Your task to perform on an android device: choose inbox layout in the gmail app Image 0: 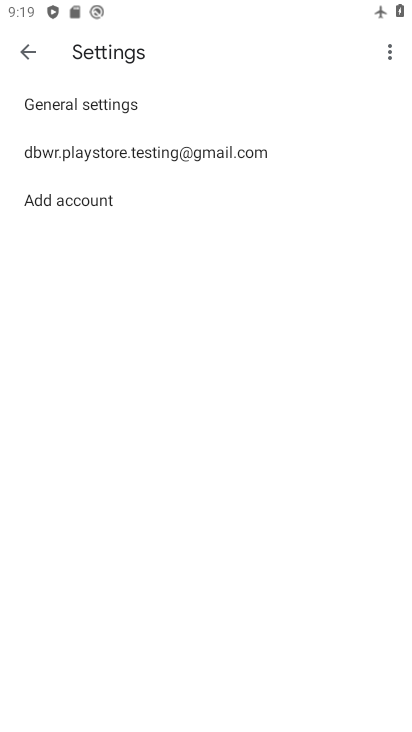
Step 0: press home button
Your task to perform on an android device: choose inbox layout in the gmail app Image 1: 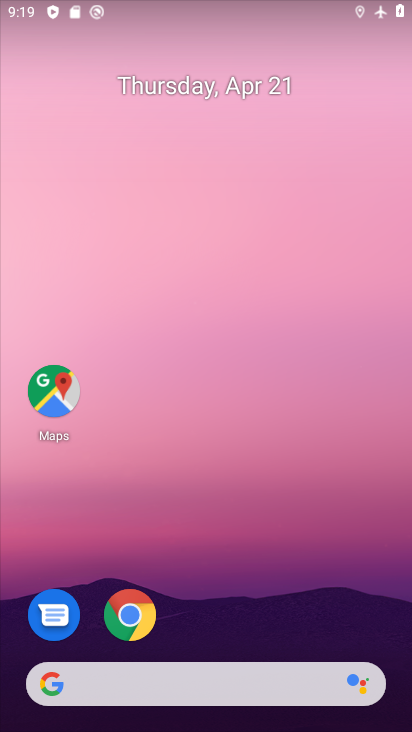
Step 1: drag from (202, 727) to (202, 175)
Your task to perform on an android device: choose inbox layout in the gmail app Image 2: 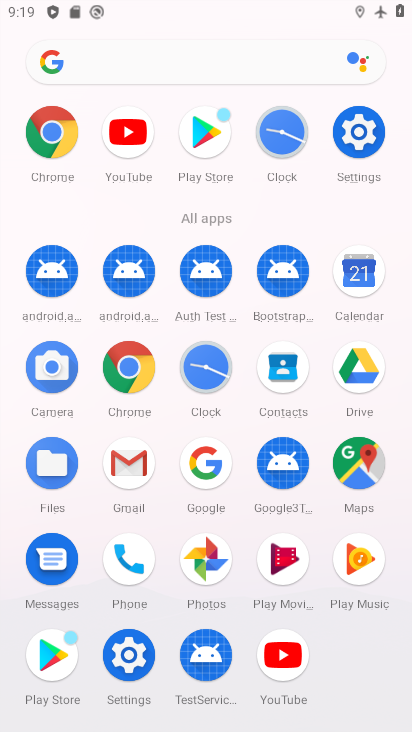
Step 2: click (129, 466)
Your task to perform on an android device: choose inbox layout in the gmail app Image 3: 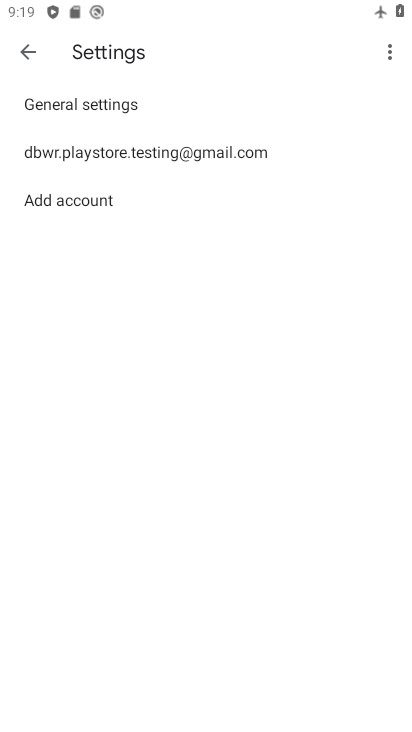
Step 3: click (163, 149)
Your task to perform on an android device: choose inbox layout in the gmail app Image 4: 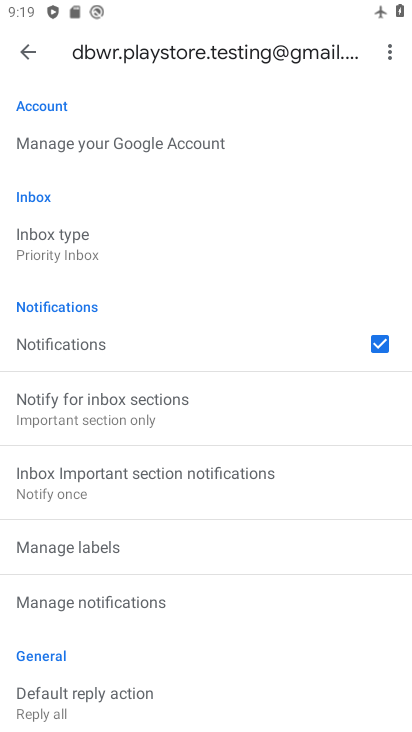
Step 4: click (70, 244)
Your task to perform on an android device: choose inbox layout in the gmail app Image 5: 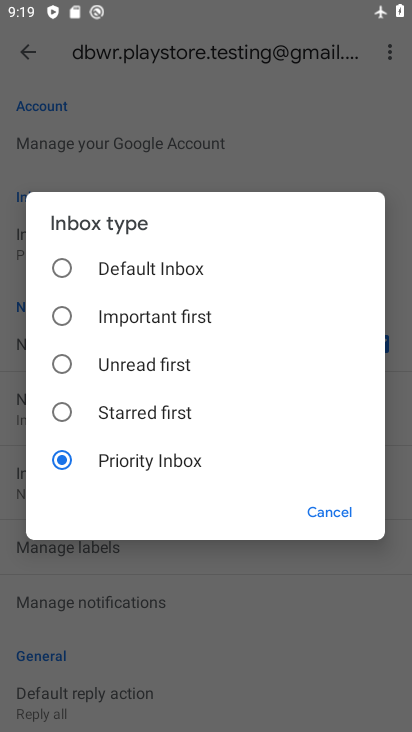
Step 5: click (63, 268)
Your task to perform on an android device: choose inbox layout in the gmail app Image 6: 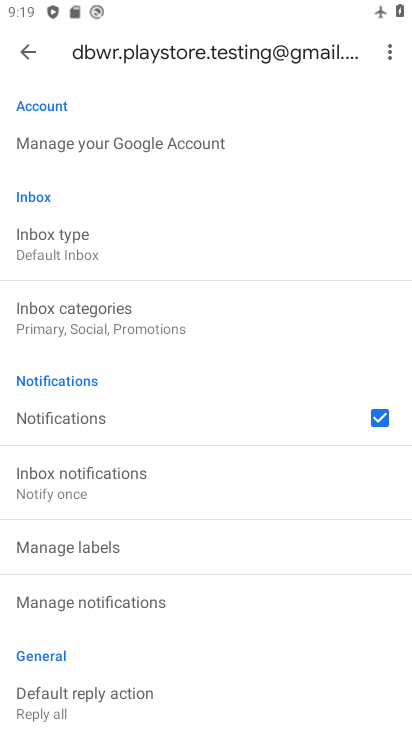
Step 6: task complete